Your task to perform on an android device: allow notifications from all sites in the chrome app Image 0: 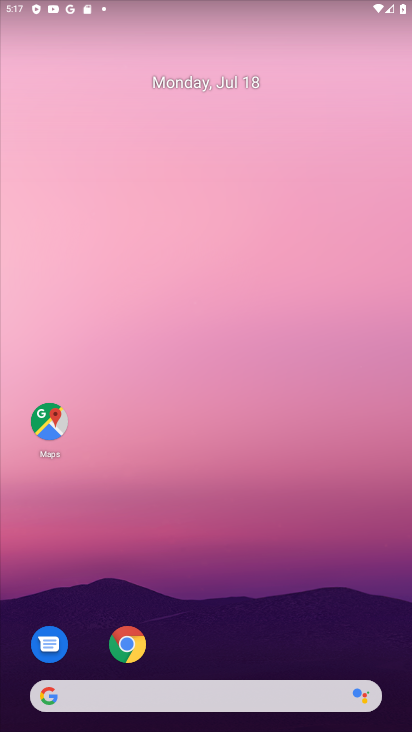
Step 0: press home button
Your task to perform on an android device: allow notifications from all sites in the chrome app Image 1: 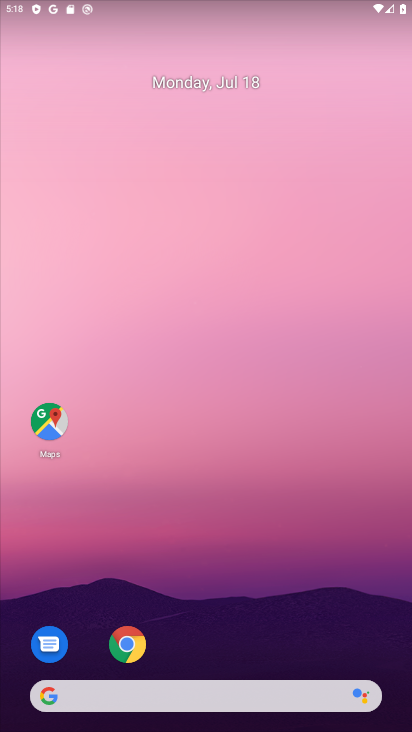
Step 1: click (141, 644)
Your task to perform on an android device: allow notifications from all sites in the chrome app Image 2: 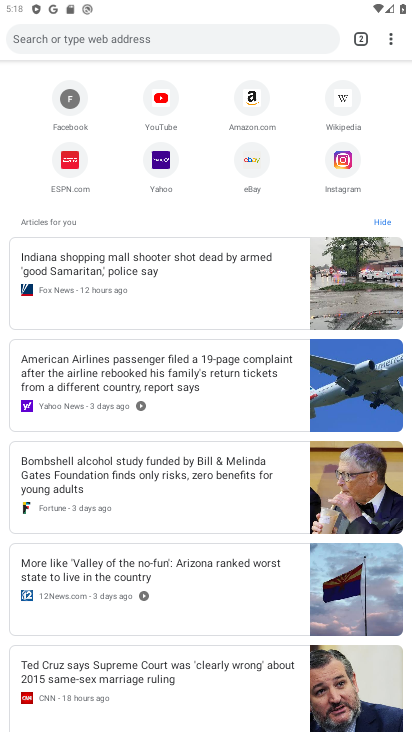
Step 2: drag from (388, 42) to (250, 328)
Your task to perform on an android device: allow notifications from all sites in the chrome app Image 3: 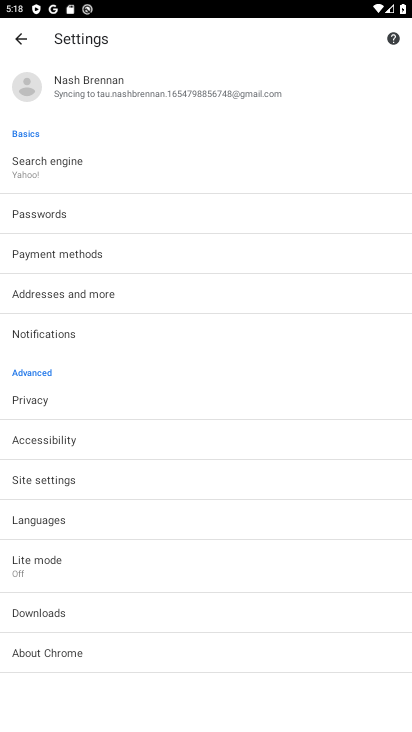
Step 3: click (60, 474)
Your task to perform on an android device: allow notifications from all sites in the chrome app Image 4: 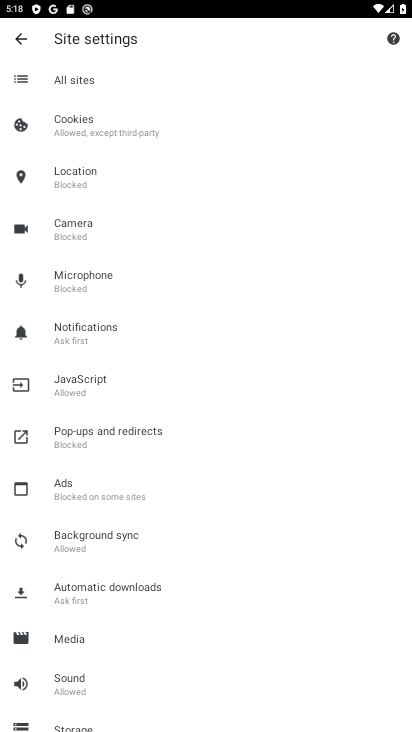
Step 4: click (97, 328)
Your task to perform on an android device: allow notifications from all sites in the chrome app Image 5: 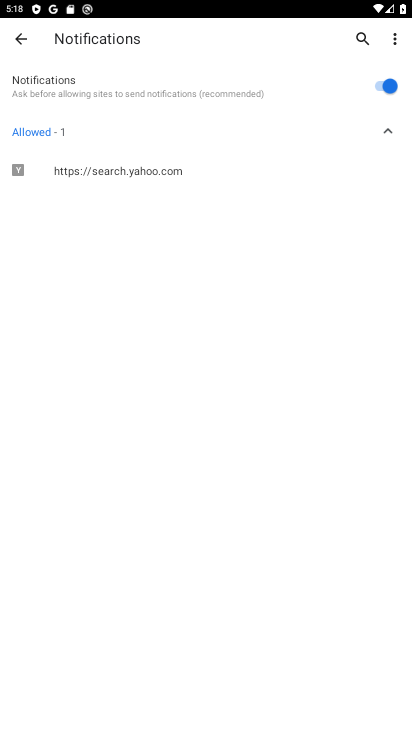
Step 5: task complete